Your task to perform on an android device: Turn on the flashlight Image 0: 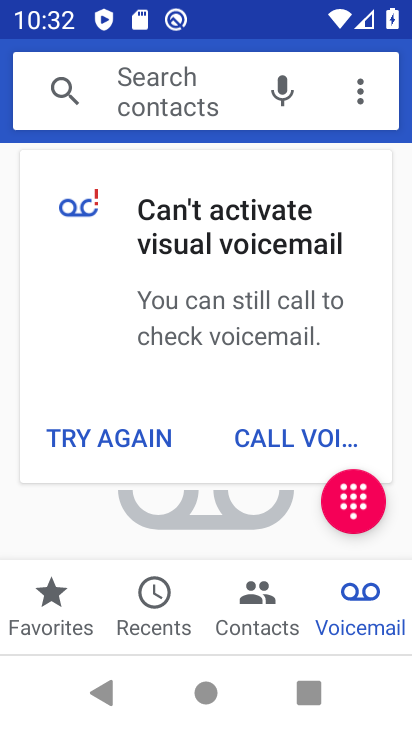
Step 0: press home button
Your task to perform on an android device: Turn on the flashlight Image 1: 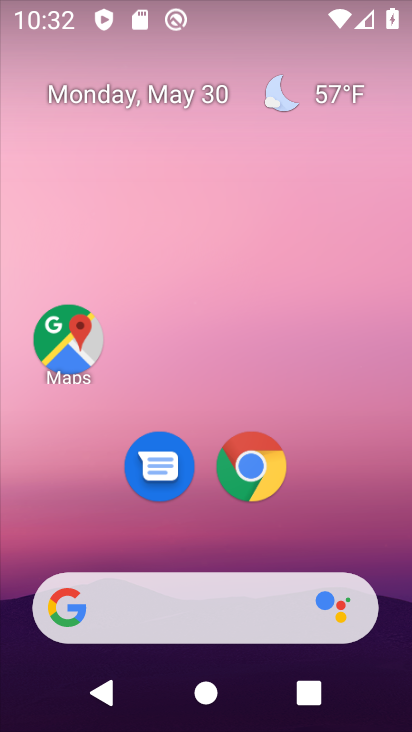
Step 1: task complete